Your task to perform on an android device: What's the weather going to be this weekend? Image 0: 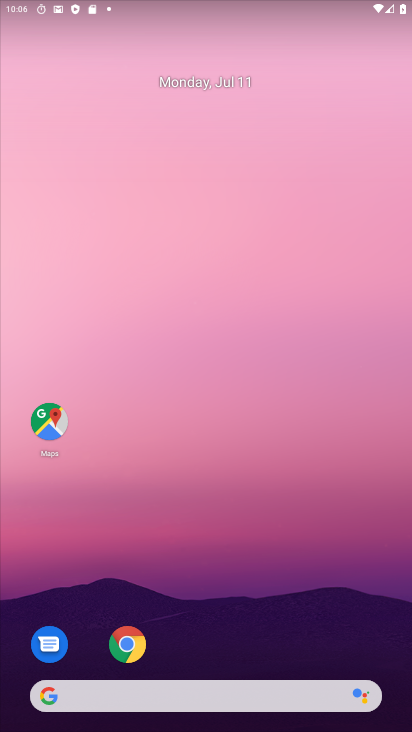
Step 0: drag from (202, 648) to (199, 94)
Your task to perform on an android device: What's the weather going to be this weekend? Image 1: 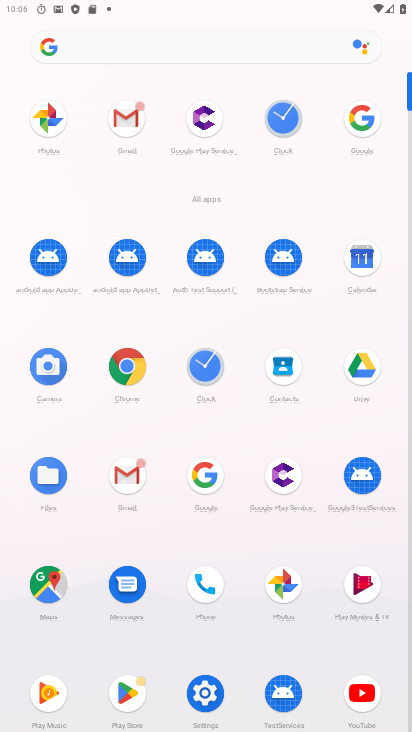
Step 1: click (361, 119)
Your task to perform on an android device: What's the weather going to be this weekend? Image 2: 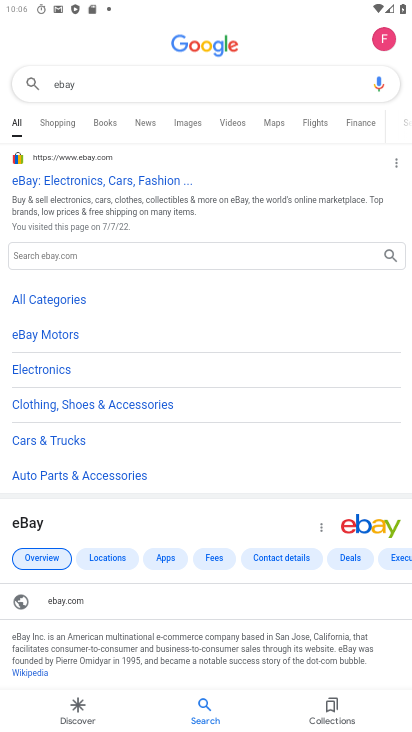
Step 2: click (190, 81)
Your task to perform on an android device: What's the weather going to be this weekend? Image 3: 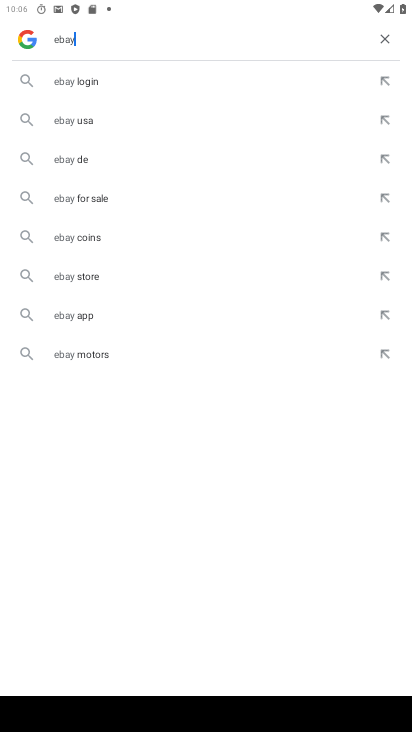
Step 3: click (384, 37)
Your task to perform on an android device: What's the weather going to be this weekend? Image 4: 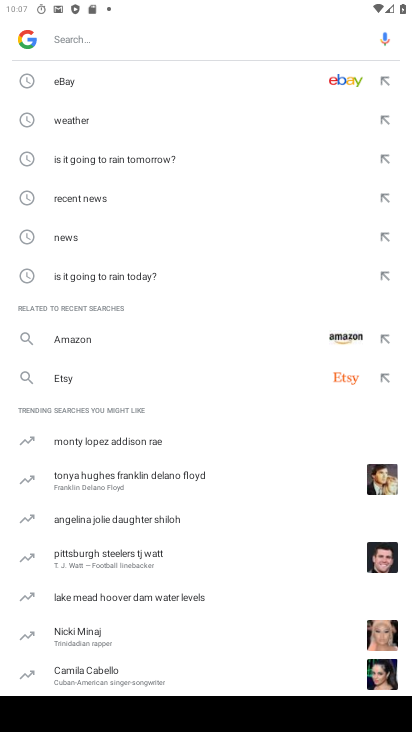
Step 4: type "What's the weather going to be this weekend?"
Your task to perform on an android device: What's the weather going to be this weekend? Image 5: 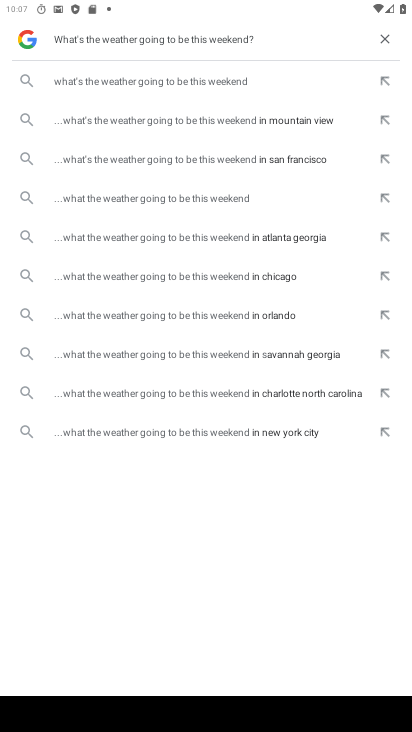
Step 5: click (231, 83)
Your task to perform on an android device: What's the weather going to be this weekend? Image 6: 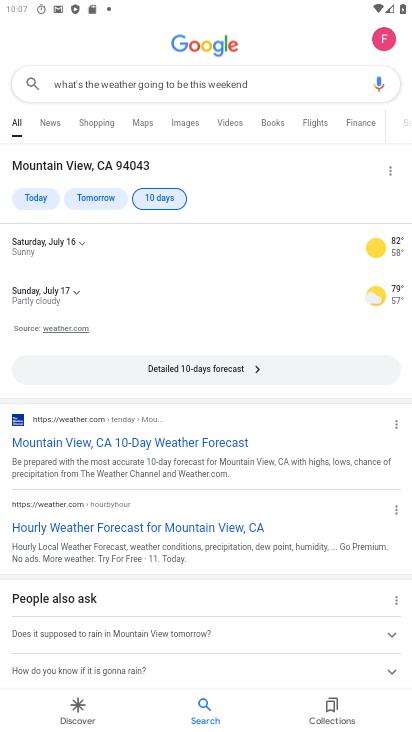
Step 6: task complete